Your task to perform on an android device: Go to network settings Image 0: 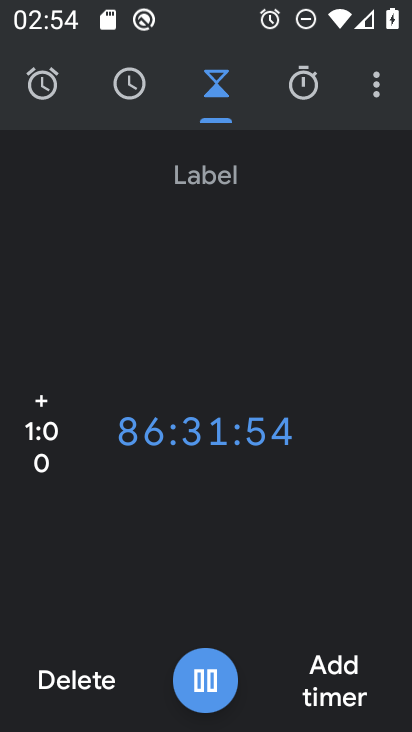
Step 0: press home button
Your task to perform on an android device: Go to network settings Image 1: 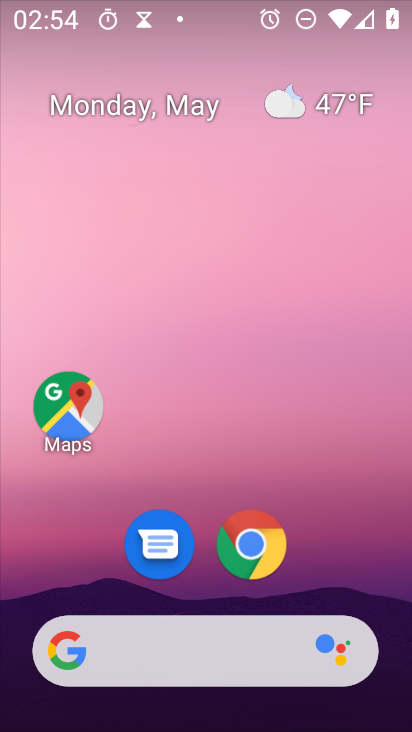
Step 1: drag from (375, 633) to (270, 3)
Your task to perform on an android device: Go to network settings Image 2: 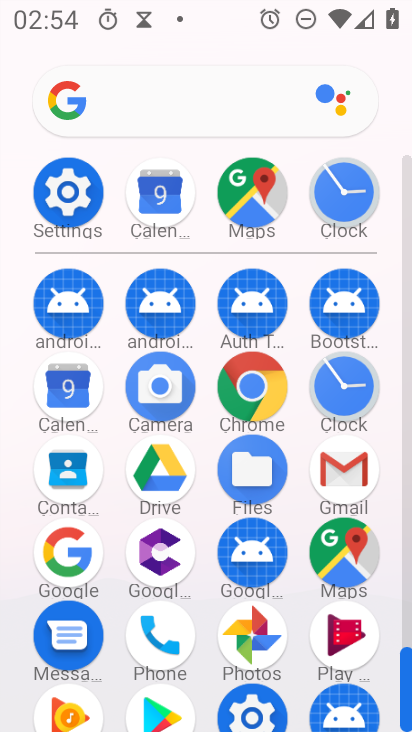
Step 2: click (77, 217)
Your task to perform on an android device: Go to network settings Image 3: 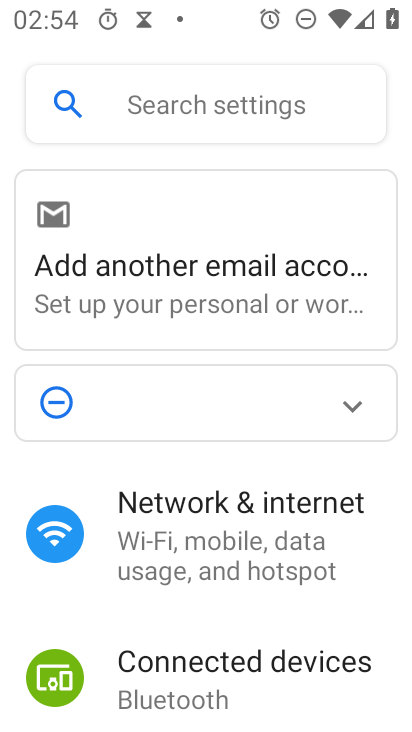
Step 3: click (279, 524)
Your task to perform on an android device: Go to network settings Image 4: 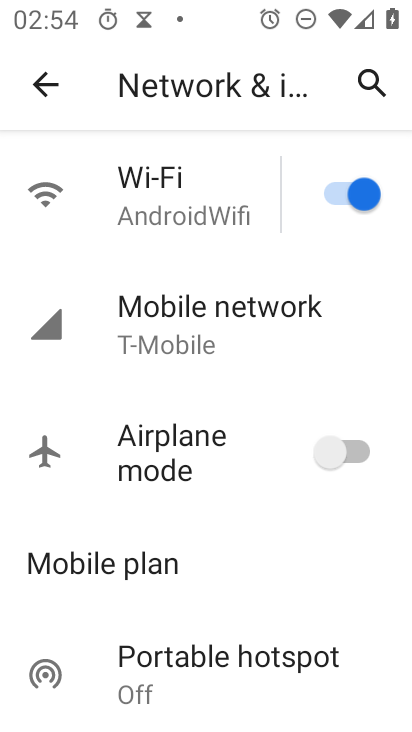
Step 4: click (321, 320)
Your task to perform on an android device: Go to network settings Image 5: 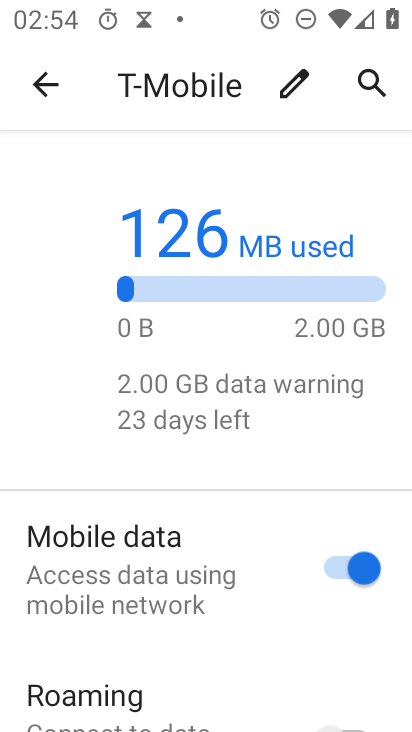
Step 5: task complete